Your task to perform on an android device: move an email to a new category in the gmail app Image 0: 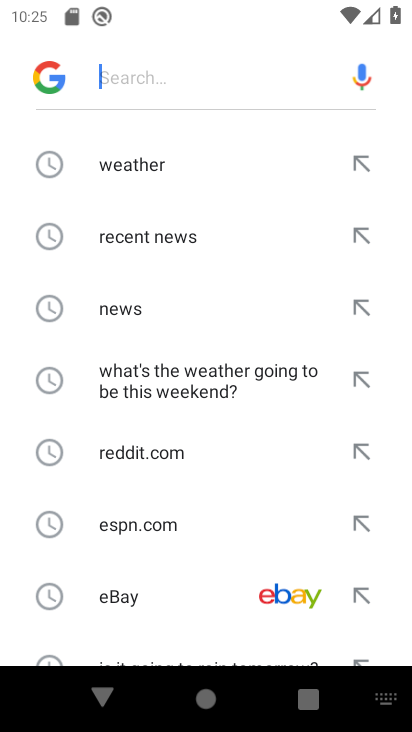
Step 0: press home button
Your task to perform on an android device: move an email to a new category in the gmail app Image 1: 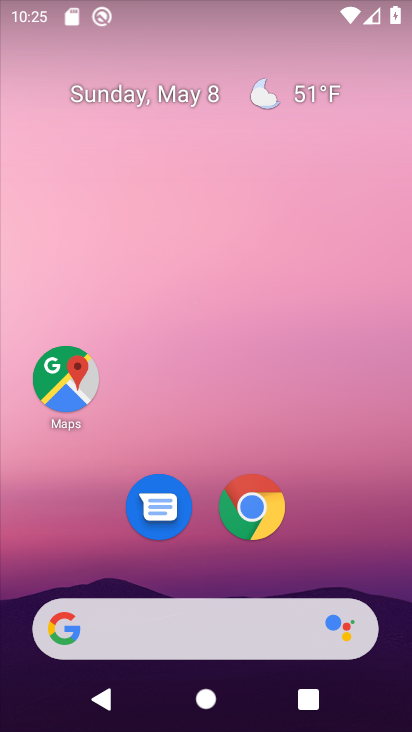
Step 1: drag from (201, 575) to (202, 157)
Your task to perform on an android device: move an email to a new category in the gmail app Image 2: 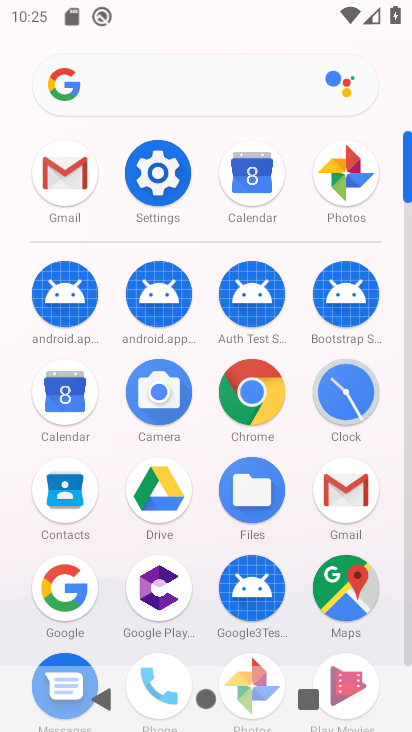
Step 2: click (342, 482)
Your task to perform on an android device: move an email to a new category in the gmail app Image 3: 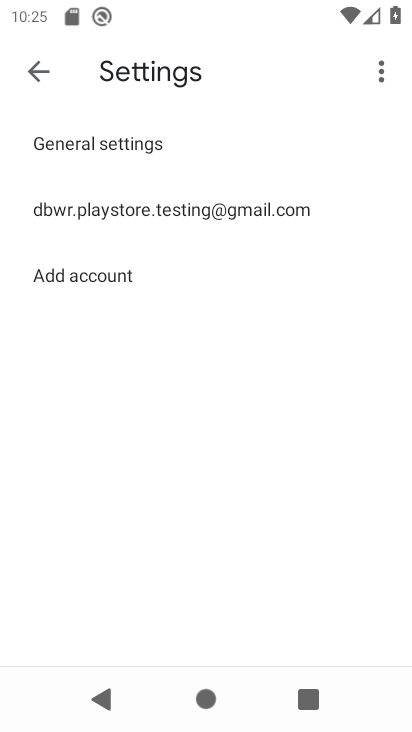
Step 3: click (44, 72)
Your task to perform on an android device: move an email to a new category in the gmail app Image 4: 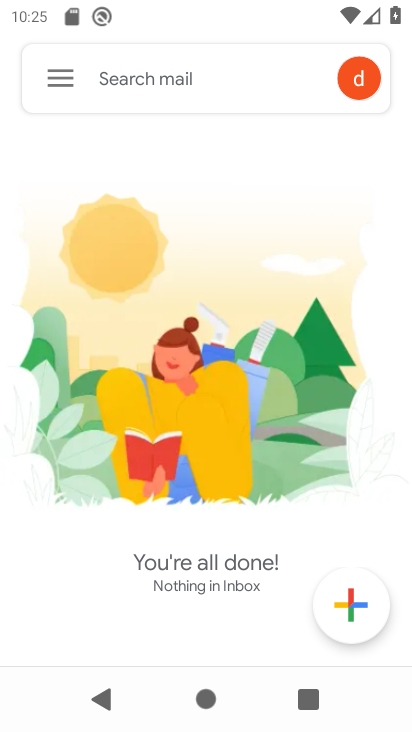
Step 4: click (59, 78)
Your task to perform on an android device: move an email to a new category in the gmail app Image 5: 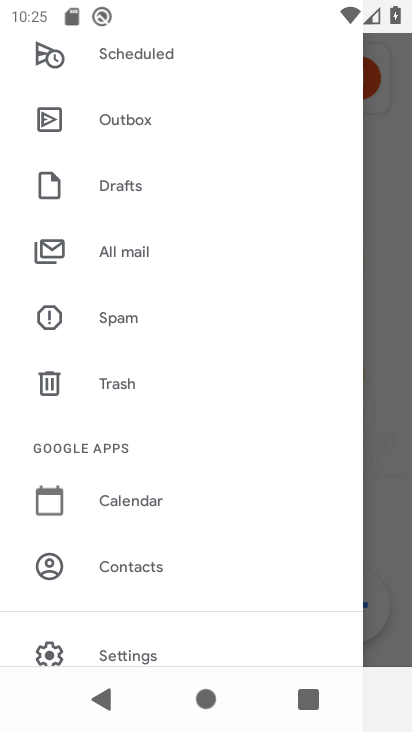
Step 5: click (128, 249)
Your task to perform on an android device: move an email to a new category in the gmail app Image 6: 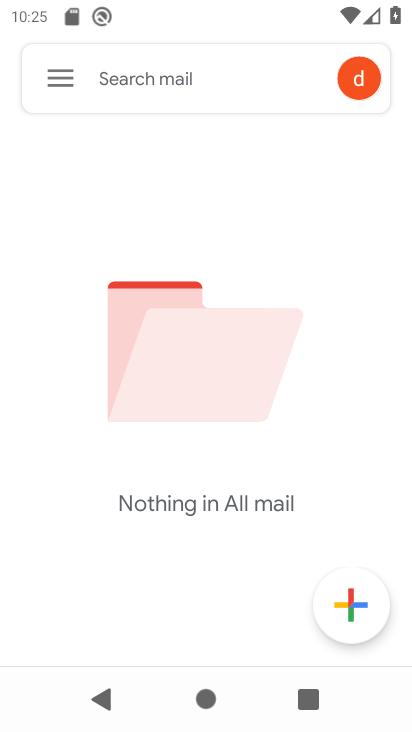
Step 6: task complete